Your task to perform on an android device: remove spam from my inbox in the gmail app Image 0: 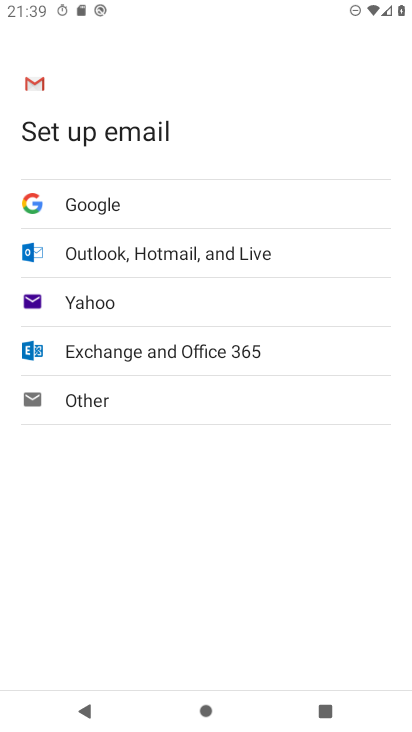
Step 0: press home button
Your task to perform on an android device: remove spam from my inbox in the gmail app Image 1: 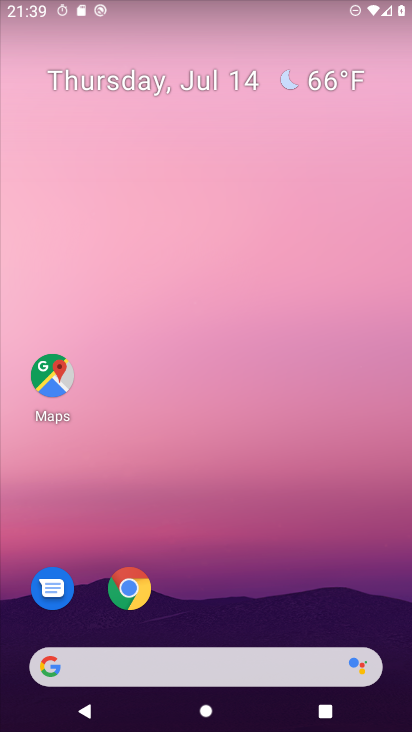
Step 1: drag from (328, 599) to (349, 63)
Your task to perform on an android device: remove spam from my inbox in the gmail app Image 2: 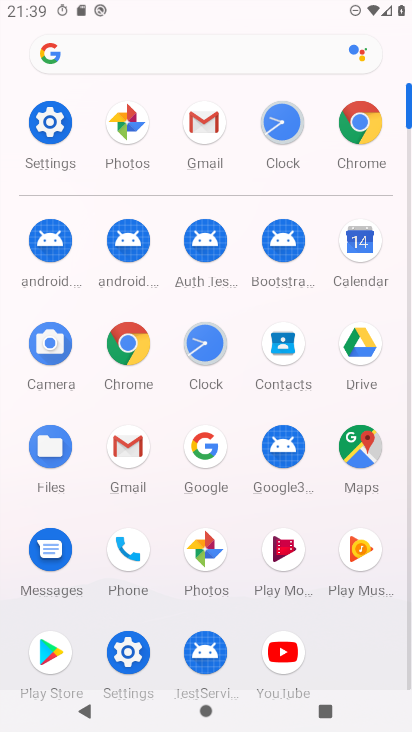
Step 2: click (202, 117)
Your task to perform on an android device: remove spam from my inbox in the gmail app Image 3: 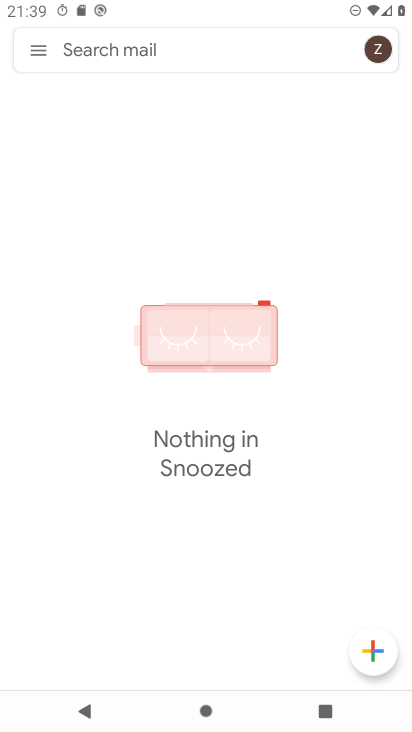
Step 3: click (36, 43)
Your task to perform on an android device: remove spam from my inbox in the gmail app Image 4: 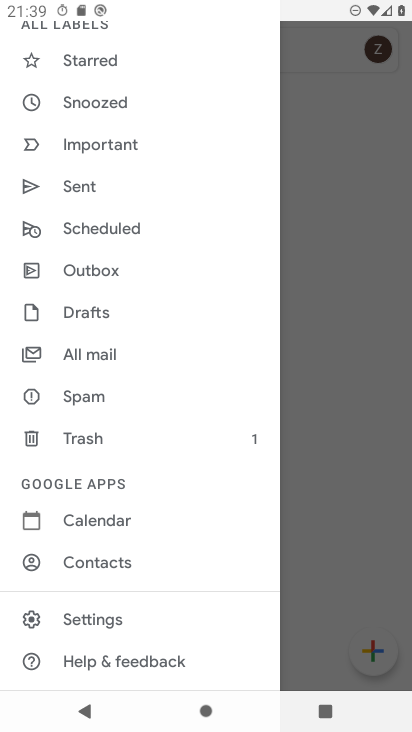
Step 4: drag from (206, 232) to (213, 304)
Your task to perform on an android device: remove spam from my inbox in the gmail app Image 5: 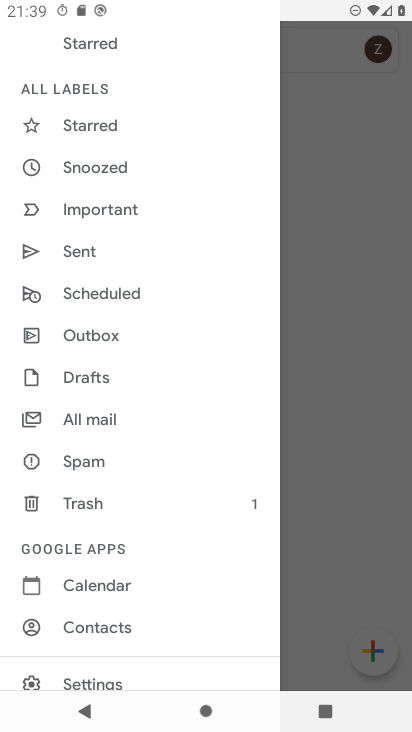
Step 5: drag from (212, 224) to (206, 298)
Your task to perform on an android device: remove spam from my inbox in the gmail app Image 6: 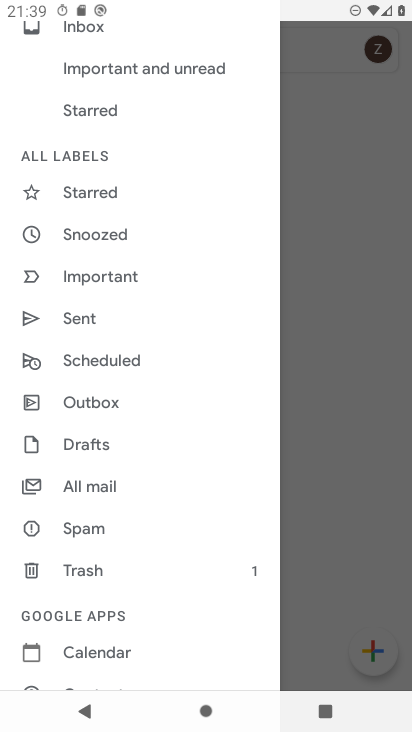
Step 6: drag from (195, 221) to (196, 310)
Your task to perform on an android device: remove spam from my inbox in the gmail app Image 7: 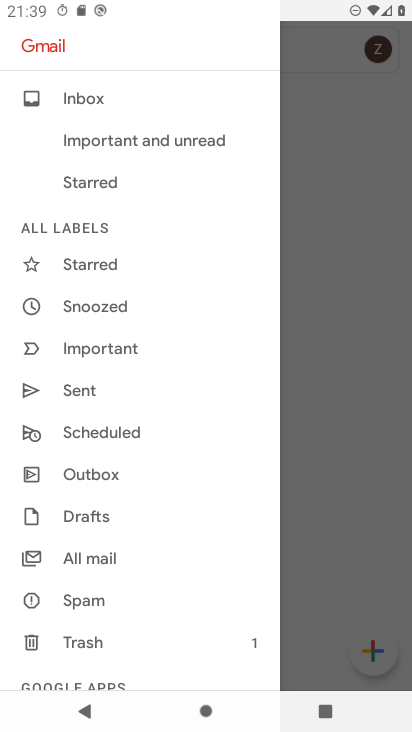
Step 7: drag from (194, 231) to (193, 321)
Your task to perform on an android device: remove spam from my inbox in the gmail app Image 8: 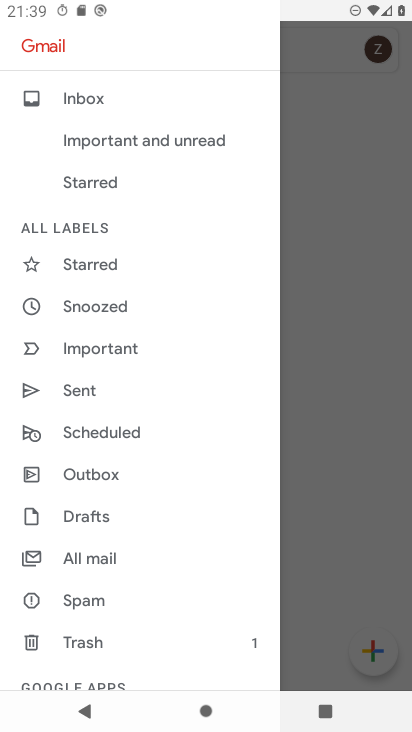
Step 8: click (188, 462)
Your task to perform on an android device: remove spam from my inbox in the gmail app Image 9: 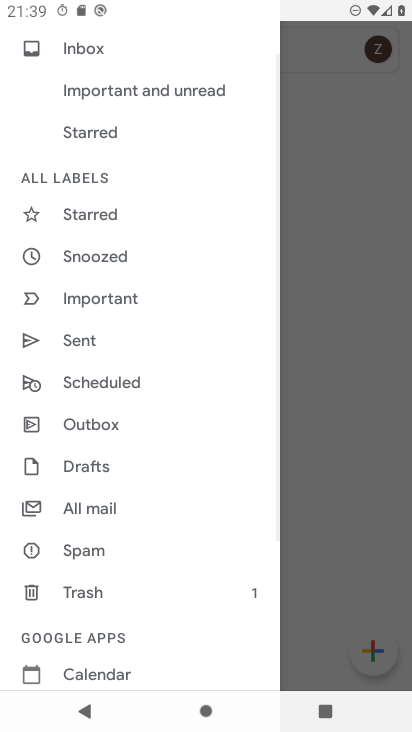
Step 9: drag from (198, 504) to (202, 413)
Your task to perform on an android device: remove spam from my inbox in the gmail app Image 10: 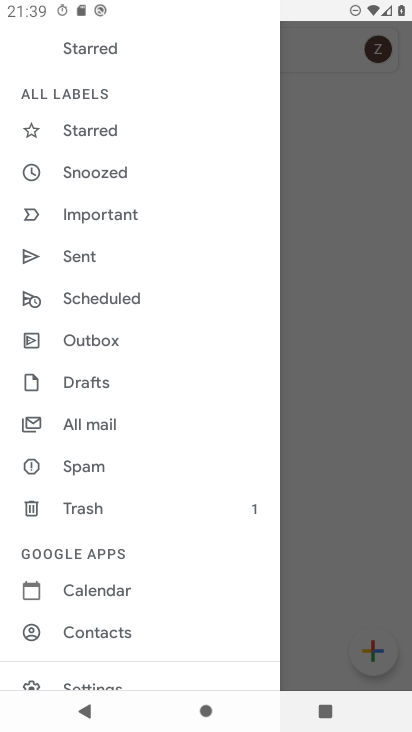
Step 10: drag from (186, 521) to (199, 380)
Your task to perform on an android device: remove spam from my inbox in the gmail app Image 11: 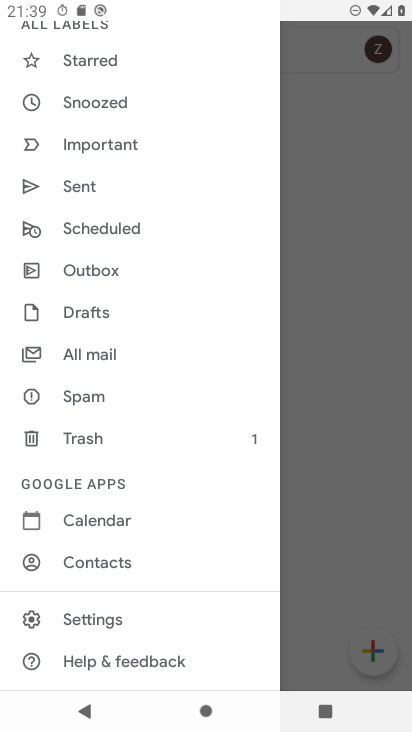
Step 11: click (137, 401)
Your task to perform on an android device: remove spam from my inbox in the gmail app Image 12: 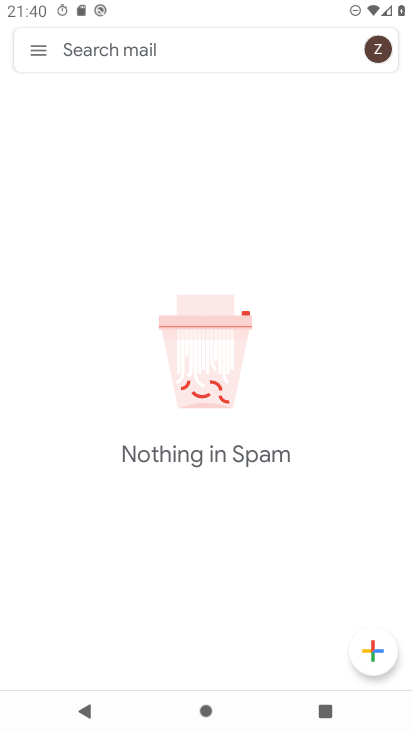
Step 12: task complete